Your task to perform on an android device: Open internet settings Image 0: 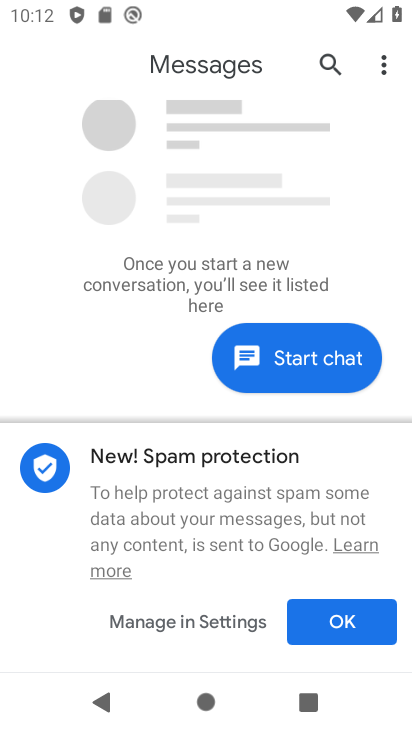
Step 0: drag from (196, 484) to (204, 350)
Your task to perform on an android device: Open internet settings Image 1: 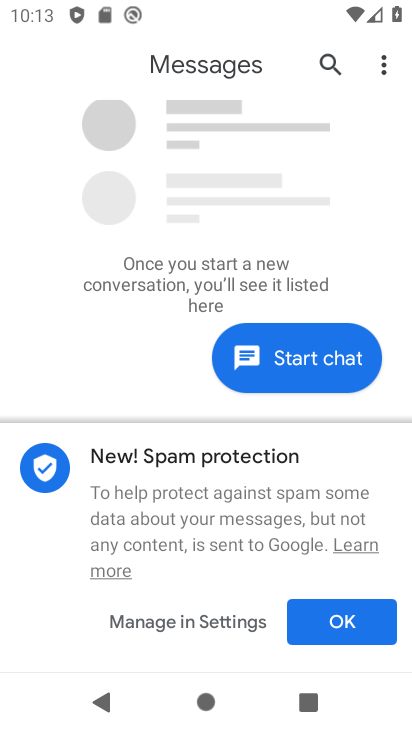
Step 1: press home button
Your task to perform on an android device: Open internet settings Image 2: 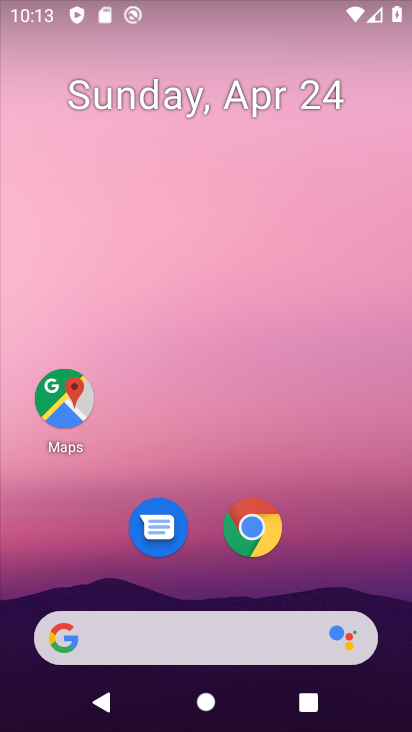
Step 2: drag from (188, 472) to (277, 5)
Your task to perform on an android device: Open internet settings Image 3: 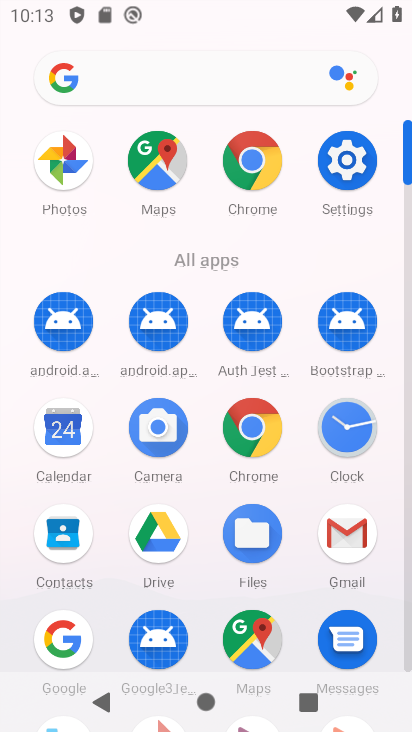
Step 3: click (358, 163)
Your task to perform on an android device: Open internet settings Image 4: 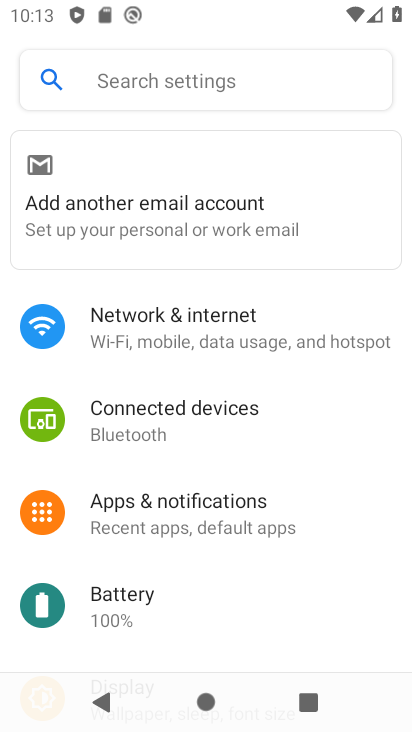
Step 4: click (177, 328)
Your task to perform on an android device: Open internet settings Image 5: 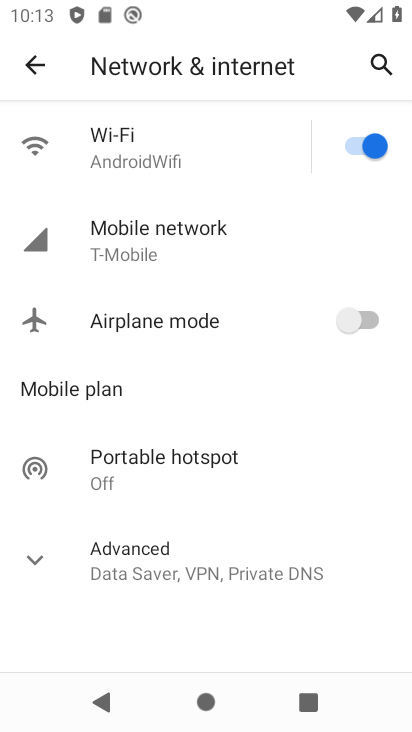
Step 5: task complete